Your task to perform on an android device: Open Google Chrome Image 0: 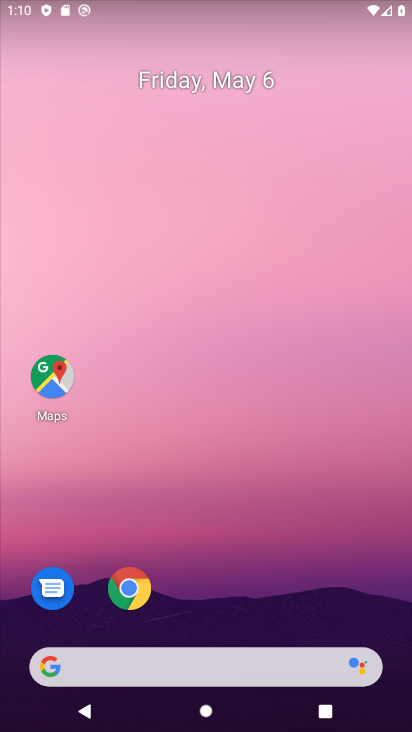
Step 0: drag from (353, 571) to (310, 73)
Your task to perform on an android device: Open Google Chrome Image 1: 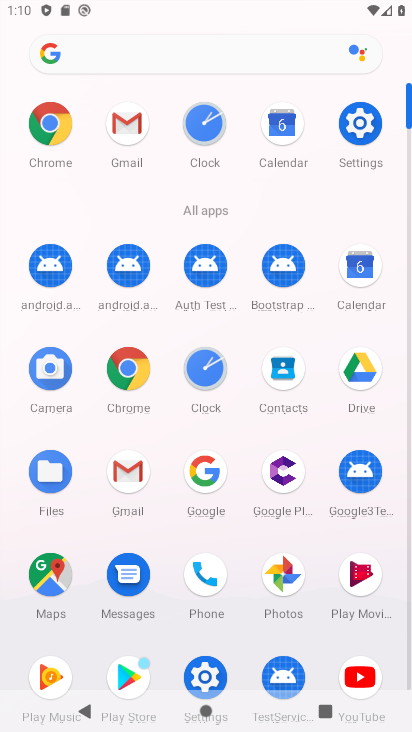
Step 1: click (125, 381)
Your task to perform on an android device: Open Google Chrome Image 2: 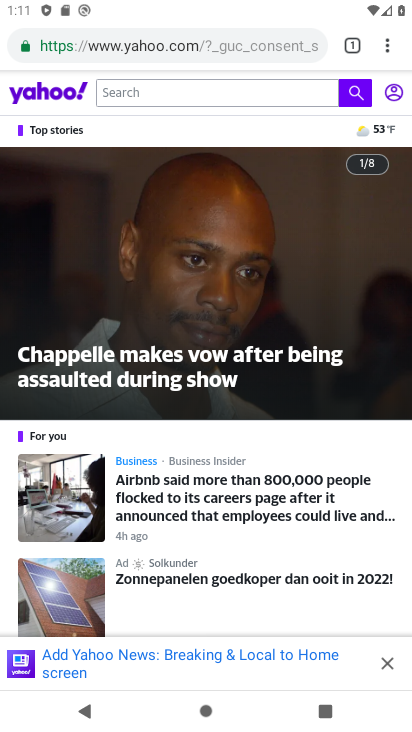
Step 2: task complete